Your task to perform on an android device: What's the weather? Image 0: 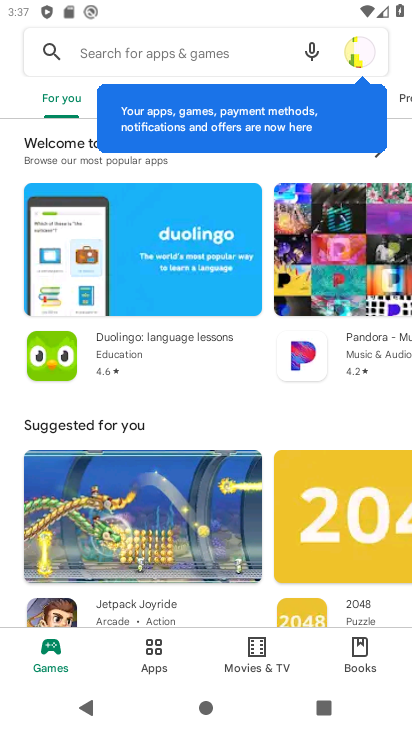
Step 0: press home button
Your task to perform on an android device: What's the weather? Image 1: 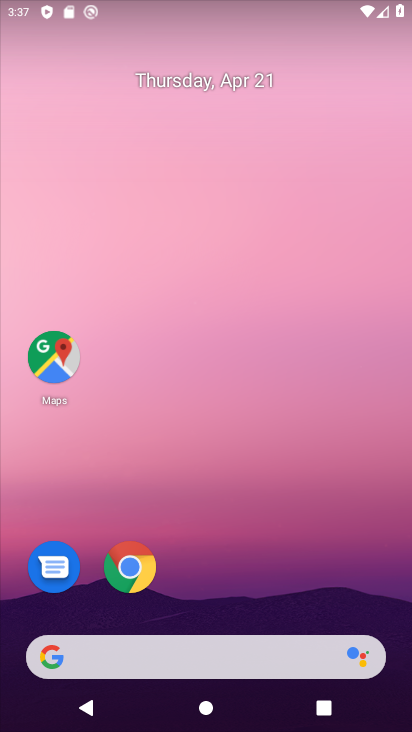
Step 1: drag from (258, 573) to (260, 74)
Your task to perform on an android device: What's the weather? Image 2: 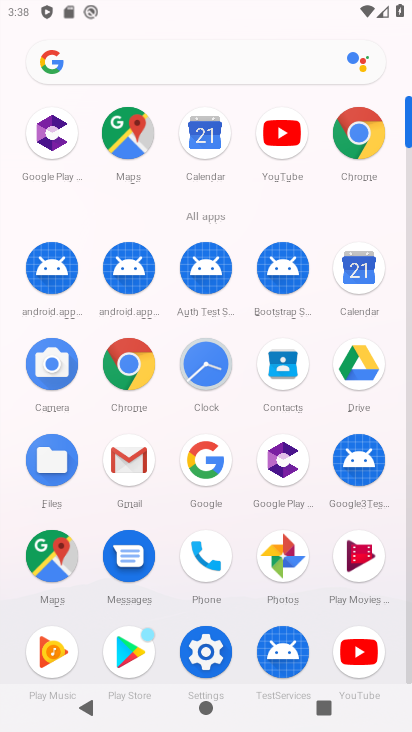
Step 2: click (119, 355)
Your task to perform on an android device: What's the weather? Image 3: 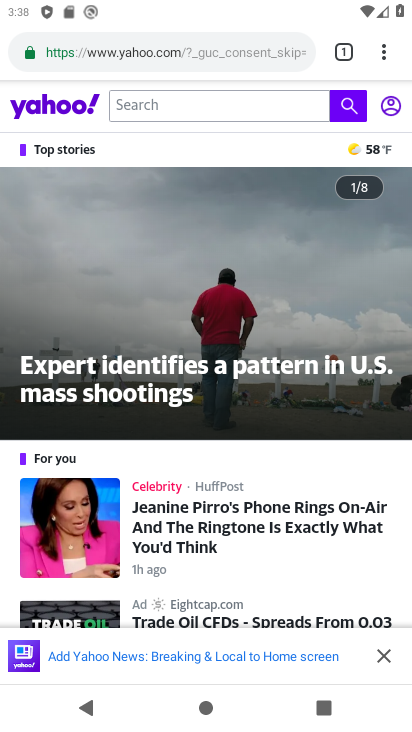
Step 3: click (83, 50)
Your task to perform on an android device: What's the weather? Image 4: 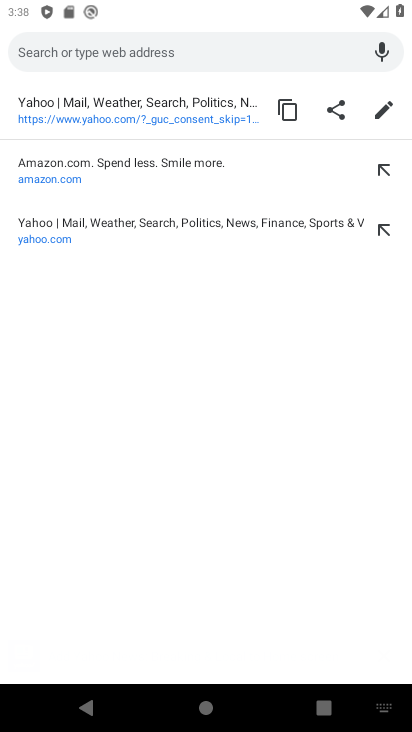
Step 4: type "weather"
Your task to perform on an android device: What's the weather? Image 5: 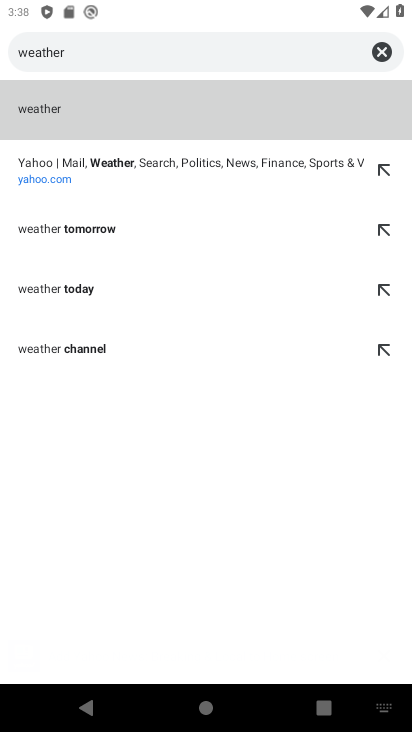
Step 5: click (149, 105)
Your task to perform on an android device: What's the weather? Image 6: 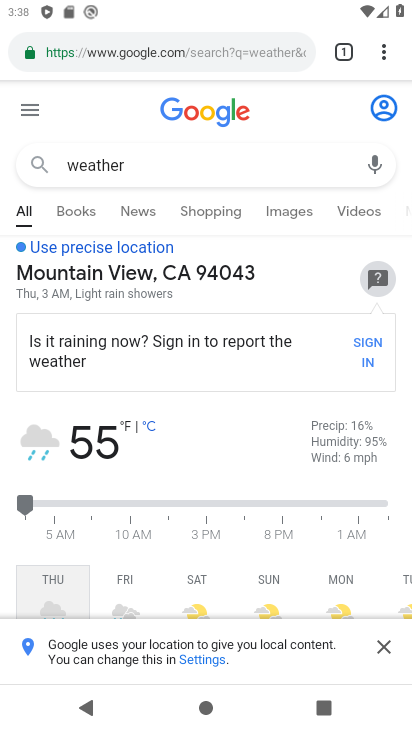
Step 6: task complete